Your task to perform on an android device: turn smart compose on in the gmail app Image 0: 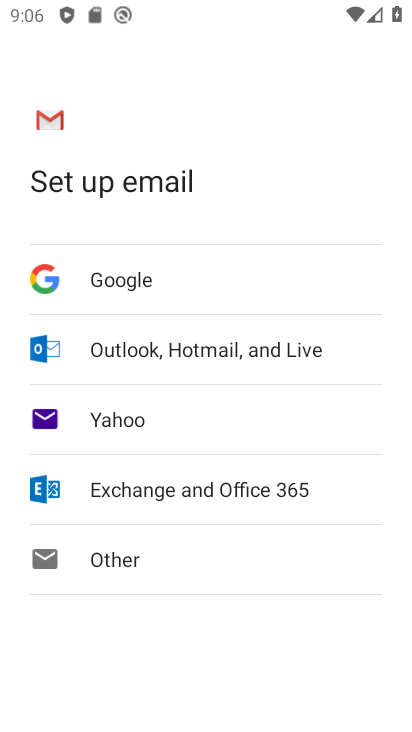
Step 0: press home button
Your task to perform on an android device: turn smart compose on in the gmail app Image 1: 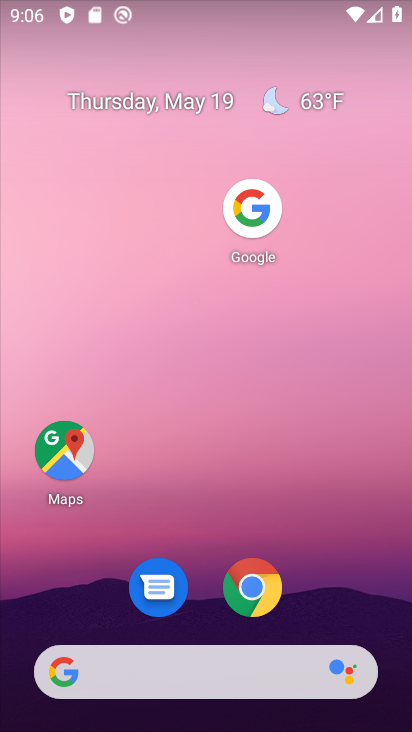
Step 1: drag from (221, 630) to (369, 41)
Your task to perform on an android device: turn smart compose on in the gmail app Image 2: 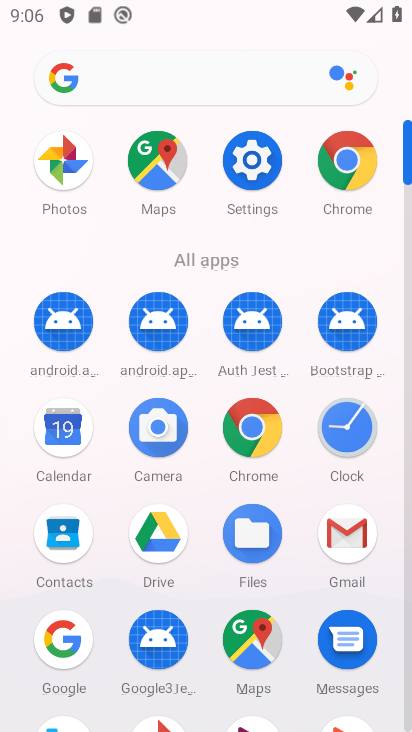
Step 2: click (354, 539)
Your task to perform on an android device: turn smart compose on in the gmail app Image 3: 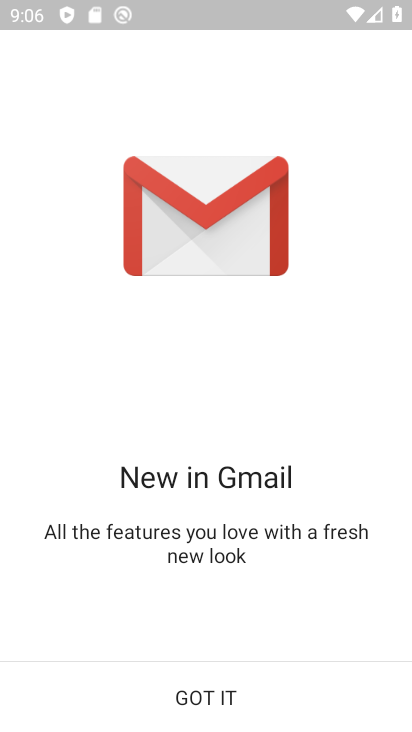
Step 3: click (221, 685)
Your task to perform on an android device: turn smart compose on in the gmail app Image 4: 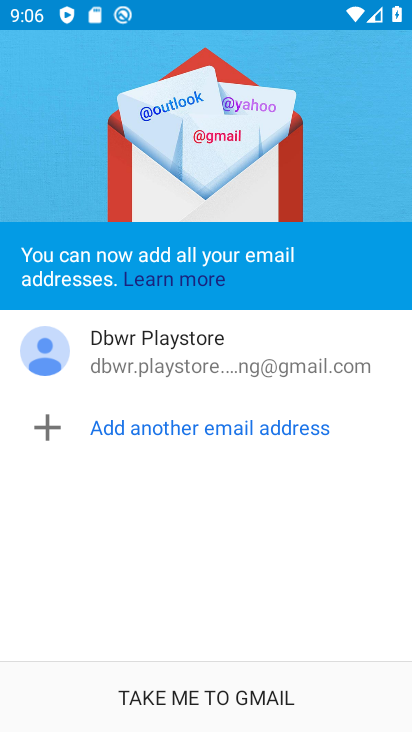
Step 4: click (219, 681)
Your task to perform on an android device: turn smart compose on in the gmail app Image 5: 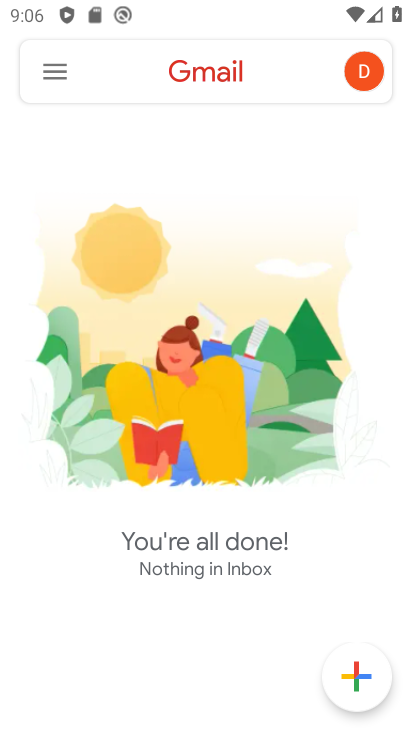
Step 5: click (49, 79)
Your task to perform on an android device: turn smart compose on in the gmail app Image 6: 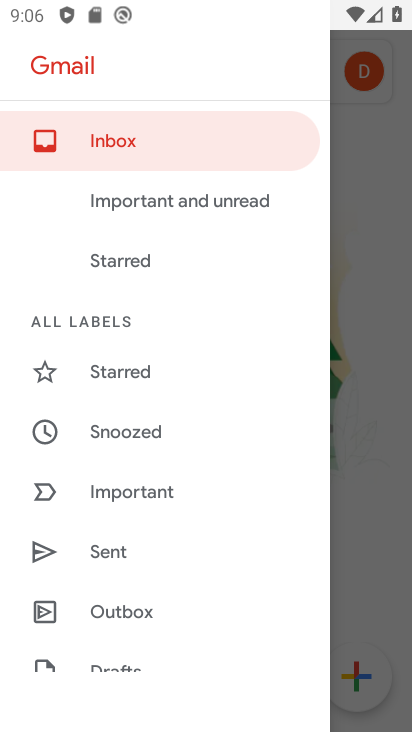
Step 6: drag from (126, 571) to (67, 174)
Your task to perform on an android device: turn smart compose on in the gmail app Image 7: 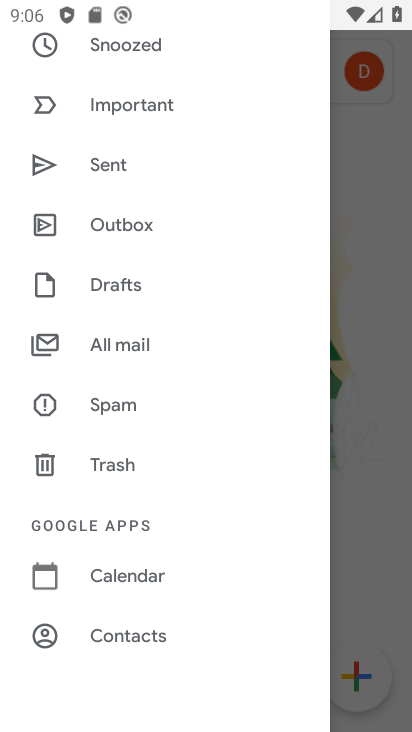
Step 7: drag from (151, 601) to (103, 95)
Your task to perform on an android device: turn smart compose on in the gmail app Image 8: 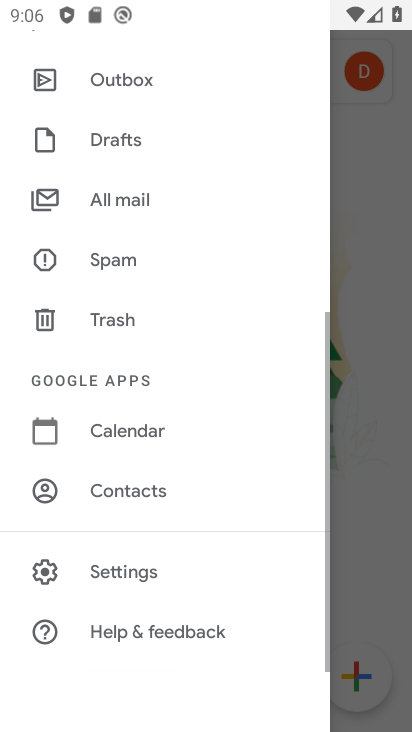
Step 8: click (108, 555)
Your task to perform on an android device: turn smart compose on in the gmail app Image 9: 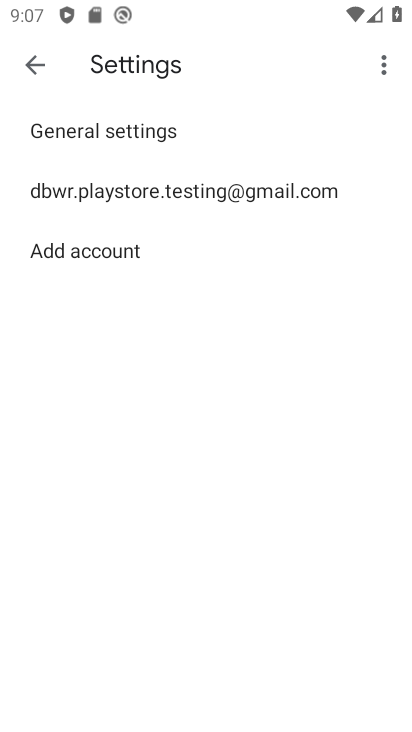
Step 9: click (93, 195)
Your task to perform on an android device: turn smart compose on in the gmail app Image 10: 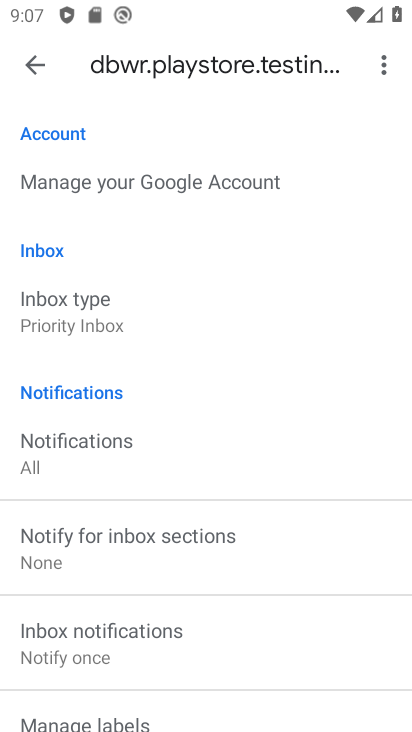
Step 10: task complete